Your task to perform on an android device: Go to ESPN.com Image 0: 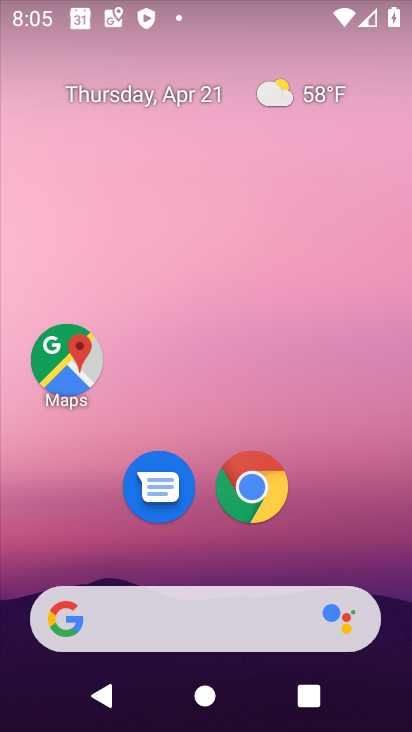
Step 0: drag from (335, 490) to (243, 60)
Your task to perform on an android device: Go to ESPN.com Image 1: 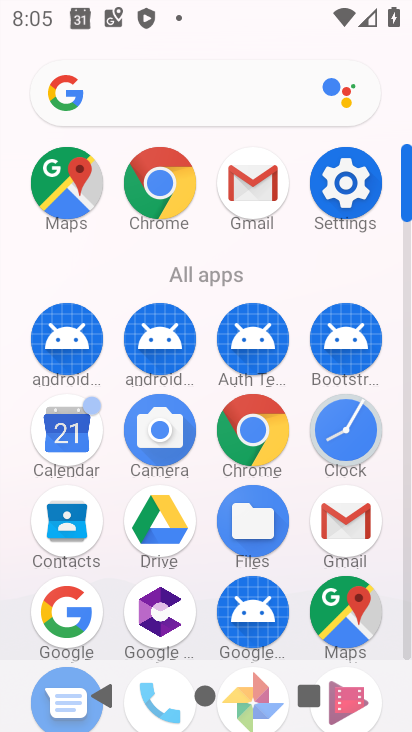
Step 1: drag from (9, 576) to (5, 329)
Your task to perform on an android device: Go to ESPN.com Image 2: 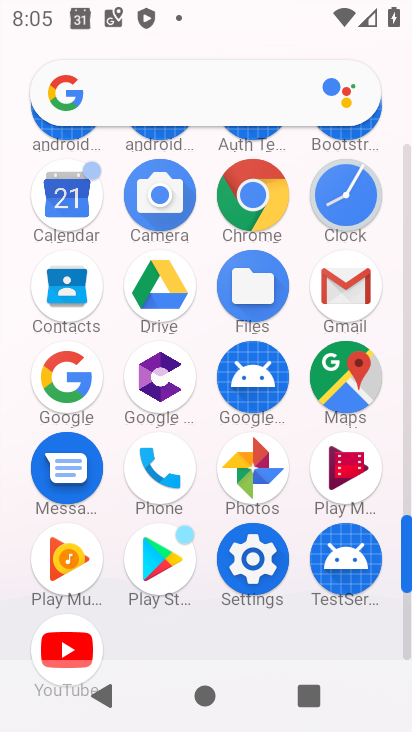
Step 2: click (247, 192)
Your task to perform on an android device: Go to ESPN.com Image 3: 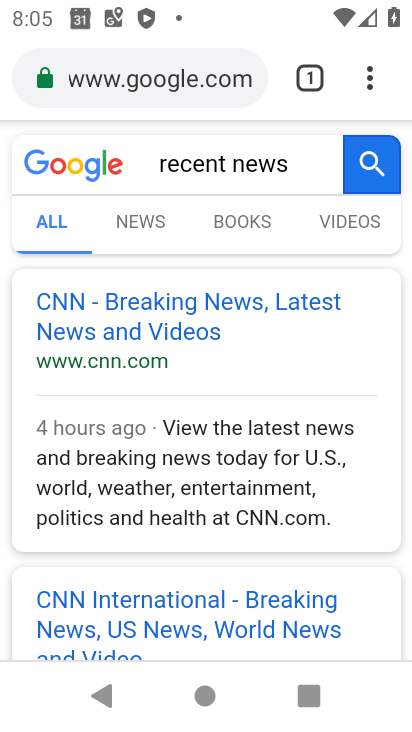
Step 3: click (198, 74)
Your task to perform on an android device: Go to ESPN.com Image 4: 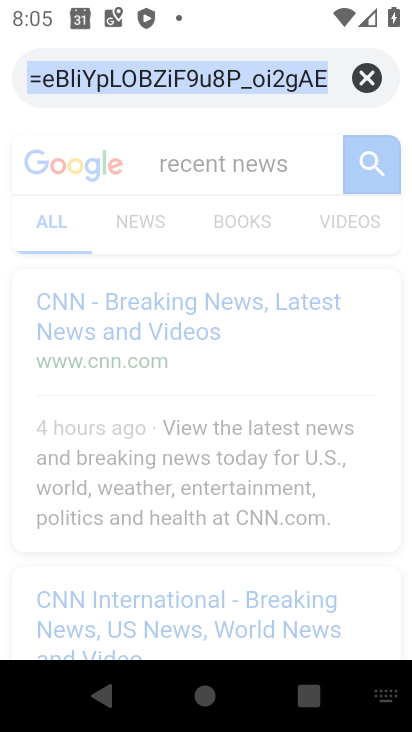
Step 4: click (371, 81)
Your task to perform on an android device: Go to ESPN.com Image 5: 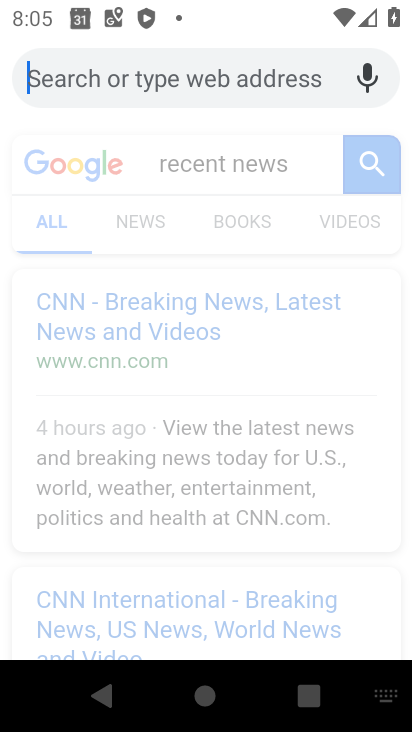
Step 5: type "ESPN.com"
Your task to perform on an android device: Go to ESPN.com Image 6: 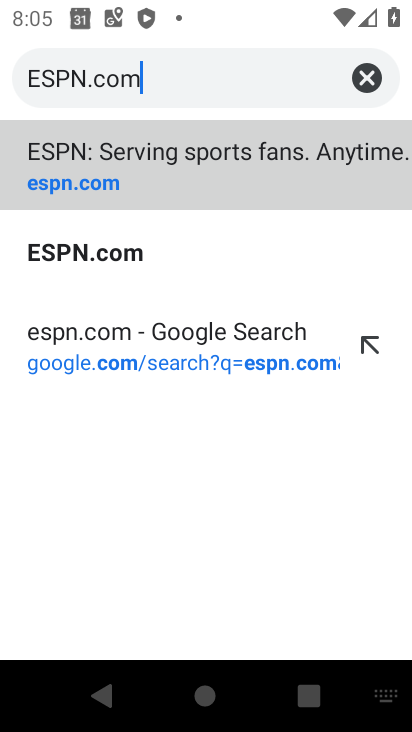
Step 6: type ""
Your task to perform on an android device: Go to ESPN.com Image 7: 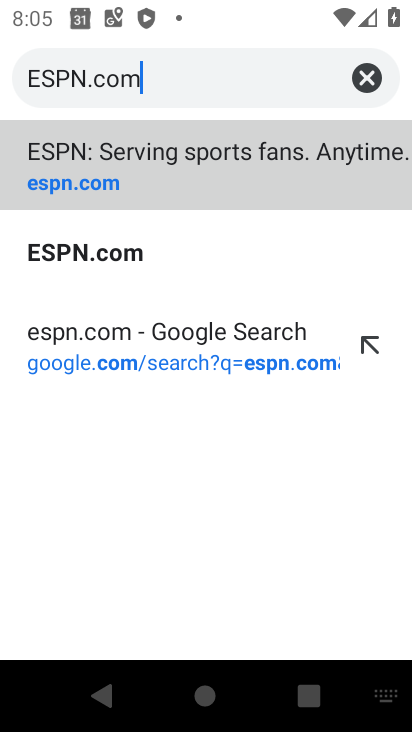
Step 7: click (151, 165)
Your task to perform on an android device: Go to ESPN.com Image 8: 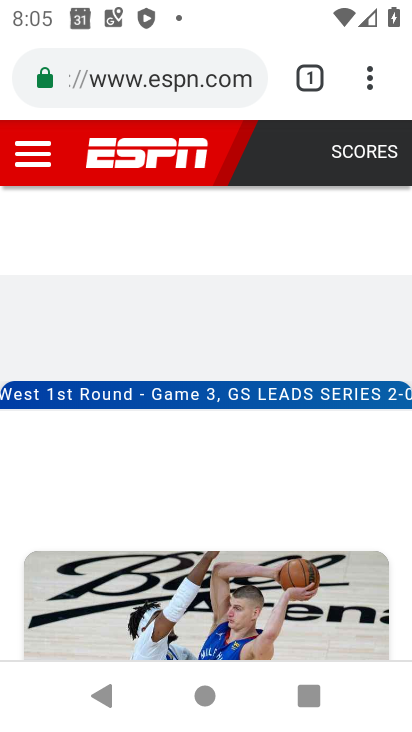
Step 8: task complete